Your task to perform on an android device: Go to Maps Image 0: 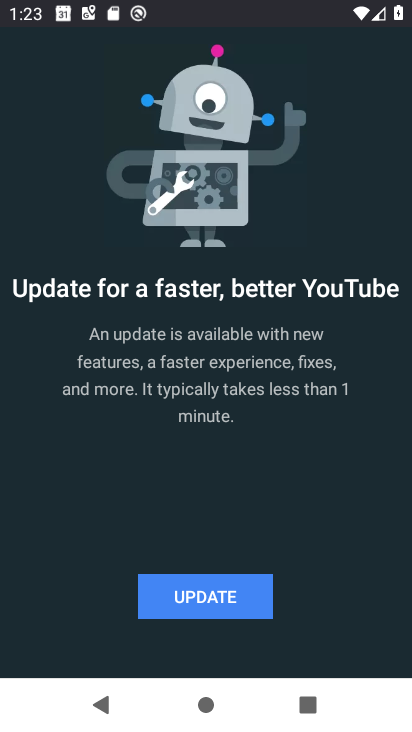
Step 0: press home button
Your task to perform on an android device: Go to Maps Image 1: 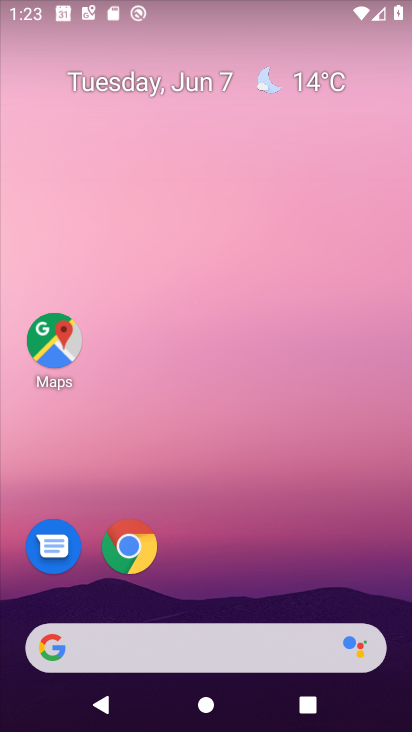
Step 1: click (54, 350)
Your task to perform on an android device: Go to Maps Image 2: 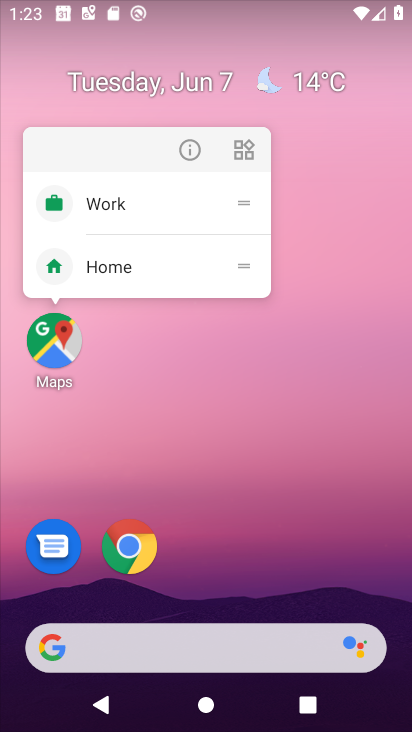
Step 2: click (55, 352)
Your task to perform on an android device: Go to Maps Image 3: 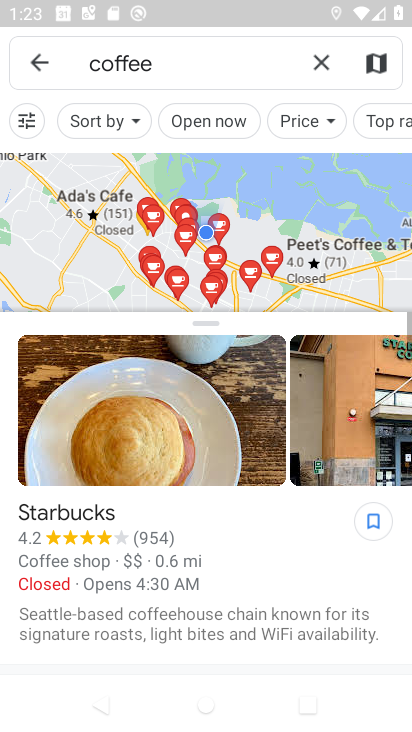
Step 3: click (322, 63)
Your task to perform on an android device: Go to Maps Image 4: 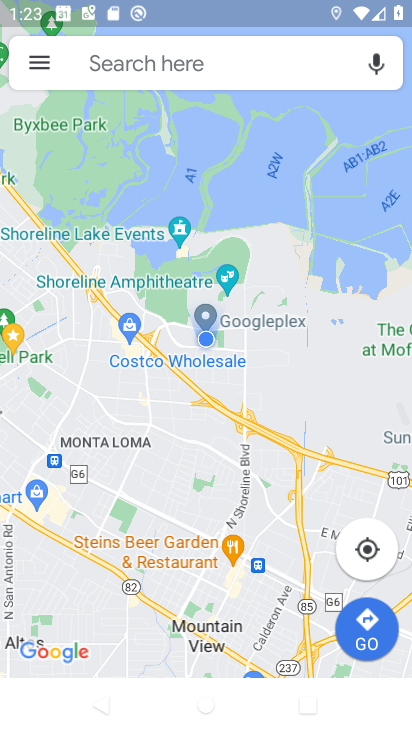
Step 4: task complete